Your task to perform on an android device: clear all cookies in the chrome app Image 0: 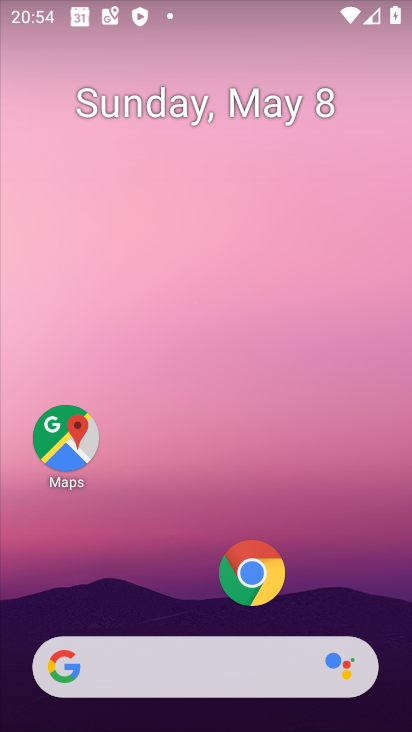
Step 0: click (254, 575)
Your task to perform on an android device: clear all cookies in the chrome app Image 1: 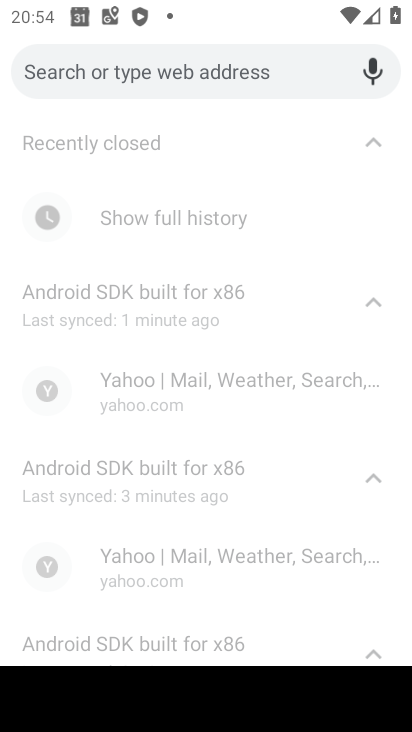
Step 1: click (62, 132)
Your task to perform on an android device: clear all cookies in the chrome app Image 2: 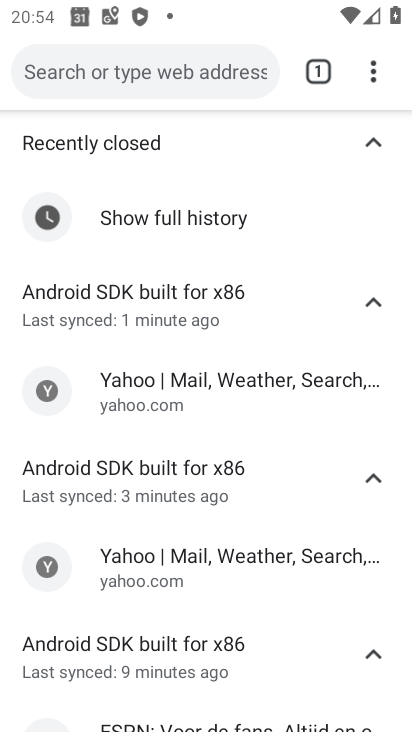
Step 2: click (374, 77)
Your task to perform on an android device: clear all cookies in the chrome app Image 3: 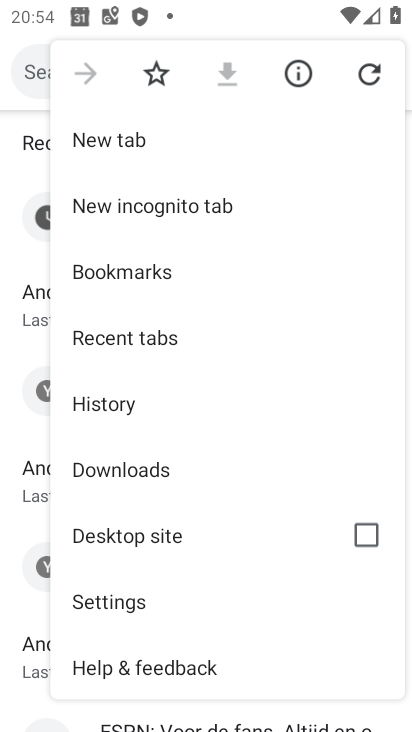
Step 3: click (115, 394)
Your task to perform on an android device: clear all cookies in the chrome app Image 4: 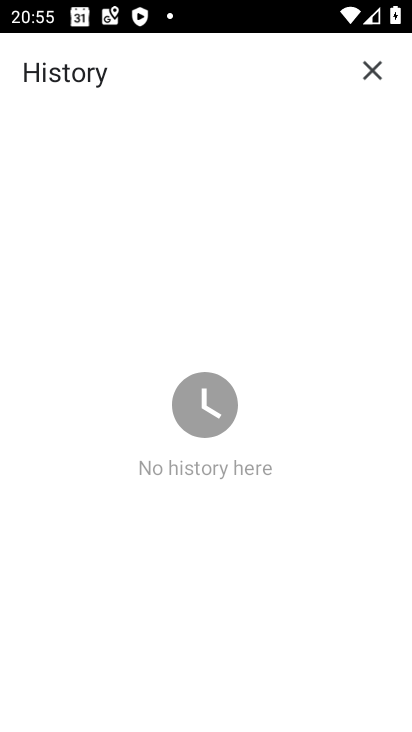
Step 4: click (144, 226)
Your task to perform on an android device: clear all cookies in the chrome app Image 5: 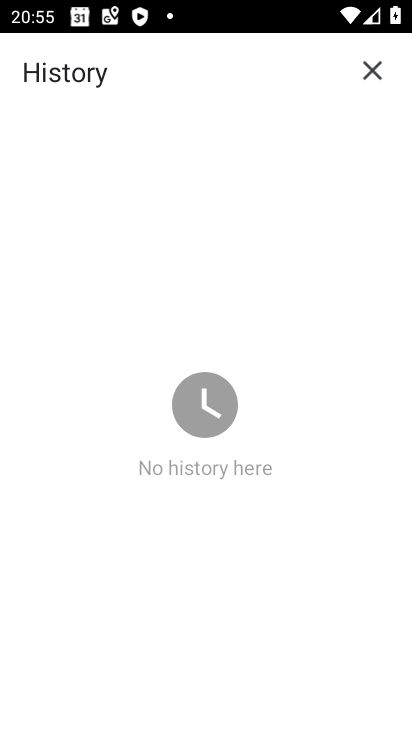
Step 5: task complete